Your task to perform on an android device: check android version Image 0: 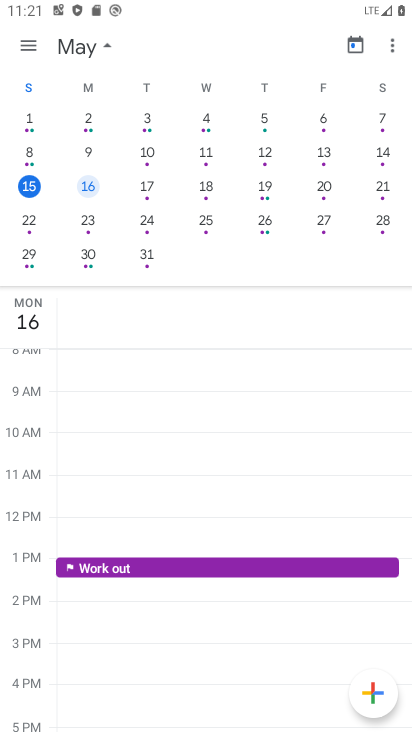
Step 0: press home button
Your task to perform on an android device: check android version Image 1: 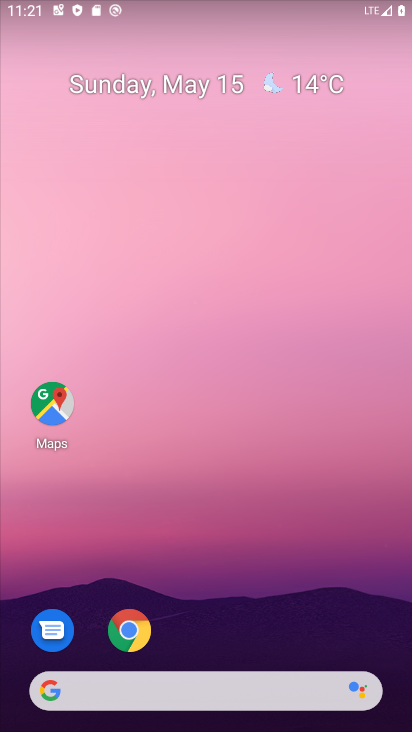
Step 1: drag from (47, 567) to (246, 156)
Your task to perform on an android device: check android version Image 2: 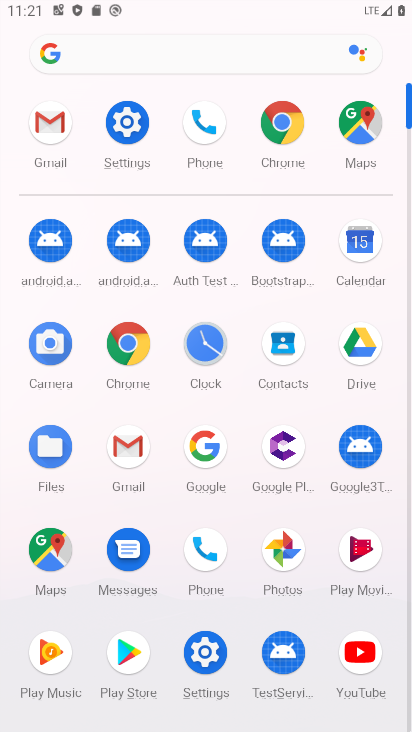
Step 2: click (129, 121)
Your task to perform on an android device: check android version Image 3: 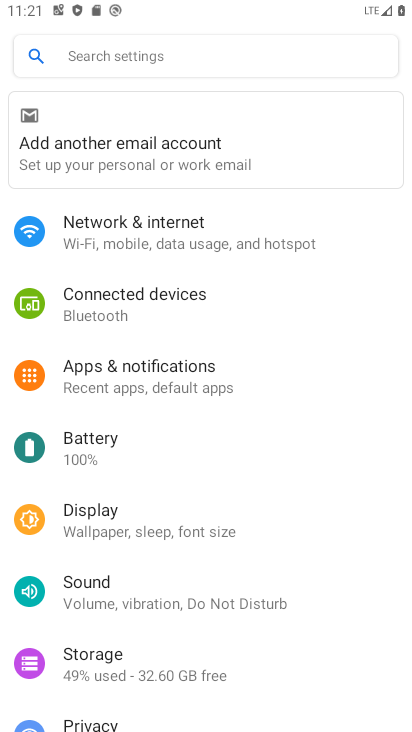
Step 3: drag from (142, 712) to (407, 127)
Your task to perform on an android device: check android version Image 4: 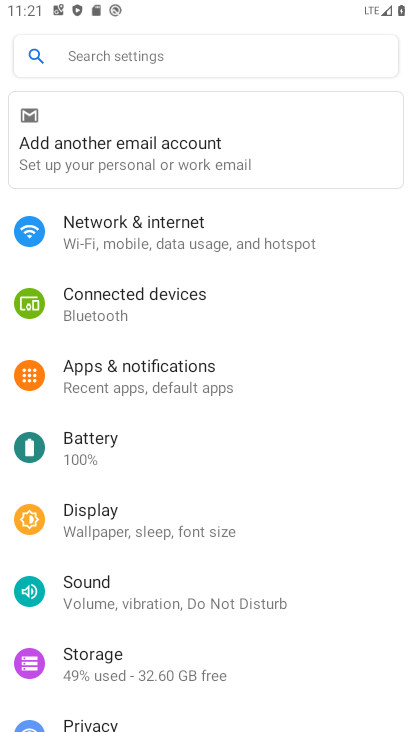
Step 4: drag from (20, 527) to (258, 62)
Your task to perform on an android device: check android version Image 5: 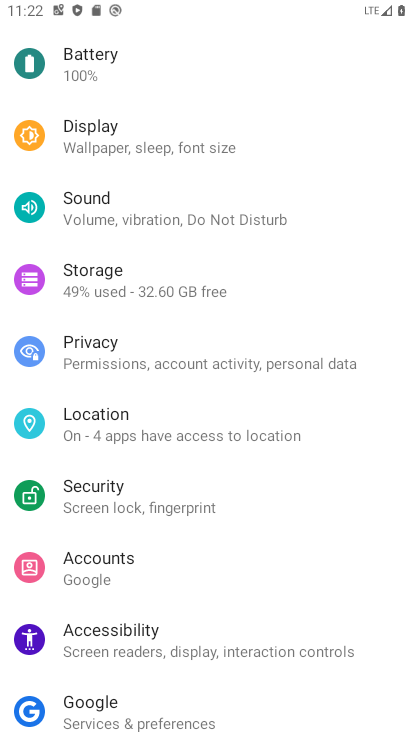
Step 5: drag from (306, 708) to (410, 175)
Your task to perform on an android device: check android version Image 6: 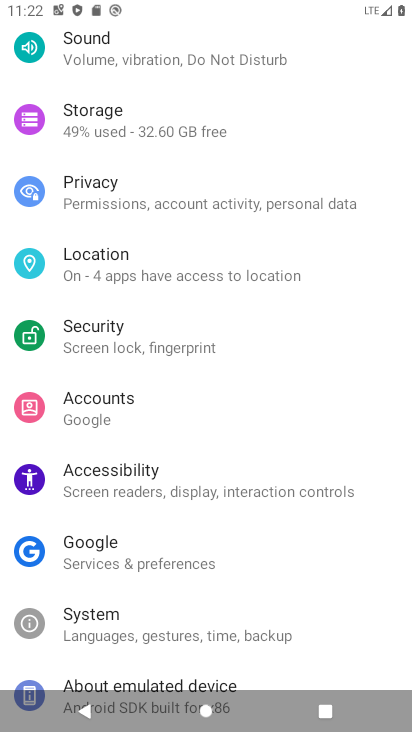
Step 6: click (125, 669)
Your task to perform on an android device: check android version Image 7: 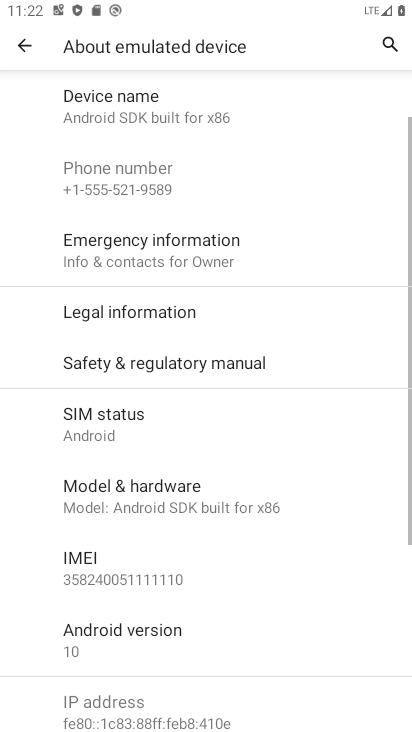
Step 7: click (106, 636)
Your task to perform on an android device: check android version Image 8: 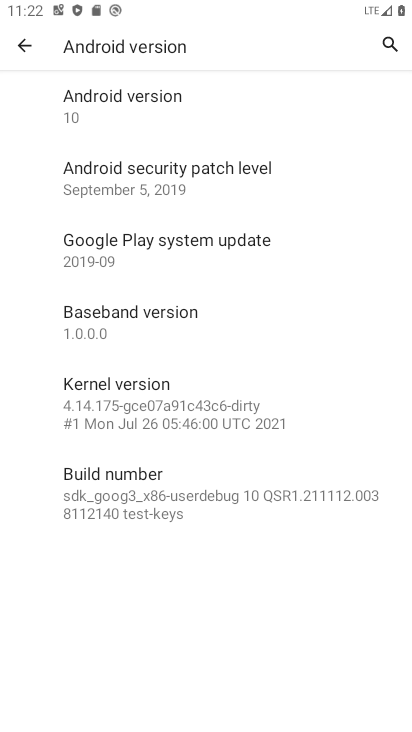
Step 8: task complete